Your task to perform on an android device: turn on bluetooth scan Image 0: 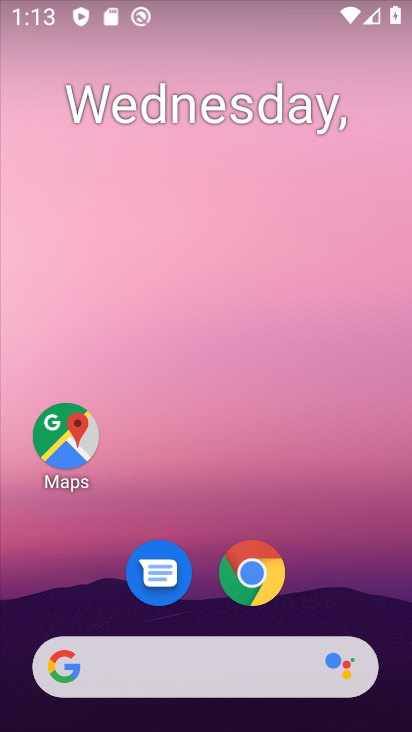
Step 0: drag from (90, 618) to (163, 170)
Your task to perform on an android device: turn on bluetooth scan Image 1: 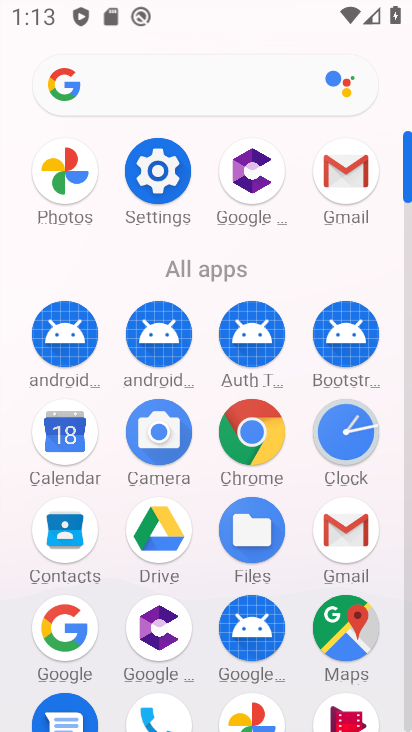
Step 1: drag from (143, 554) to (202, 337)
Your task to perform on an android device: turn on bluetooth scan Image 2: 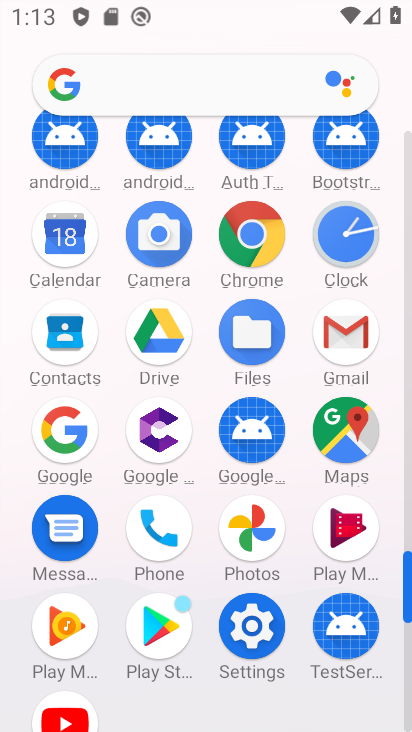
Step 2: click (259, 623)
Your task to perform on an android device: turn on bluetooth scan Image 3: 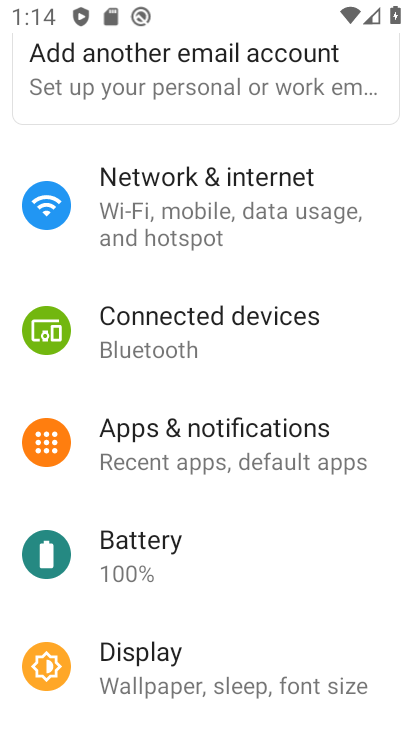
Step 3: click (255, 351)
Your task to perform on an android device: turn on bluetooth scan Image 4: 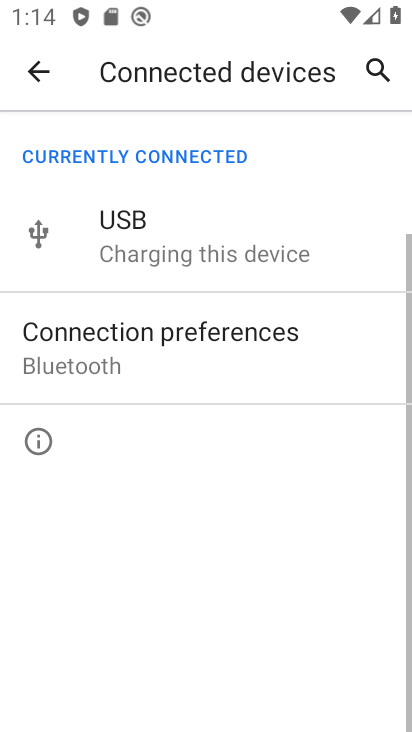
Step 4: click (226, 340)
Your task to perform on an android device: turn on bluetooth scan Image 5: 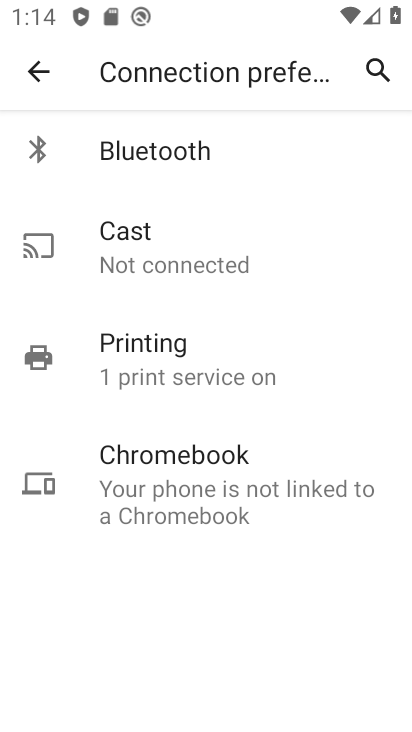
Step 5: click (243, 152)
Your task to perform on an android device: turn on bluetooth scan Image 6: 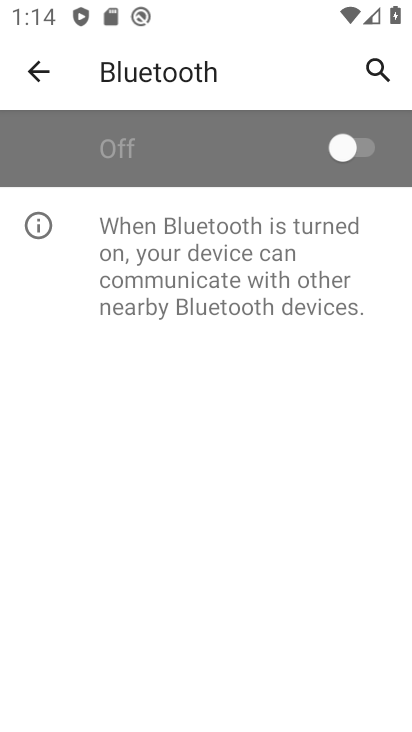
Step 6: click (369, 151)
Your task to perform on an android device: turn on bluetooth scan Image 7: 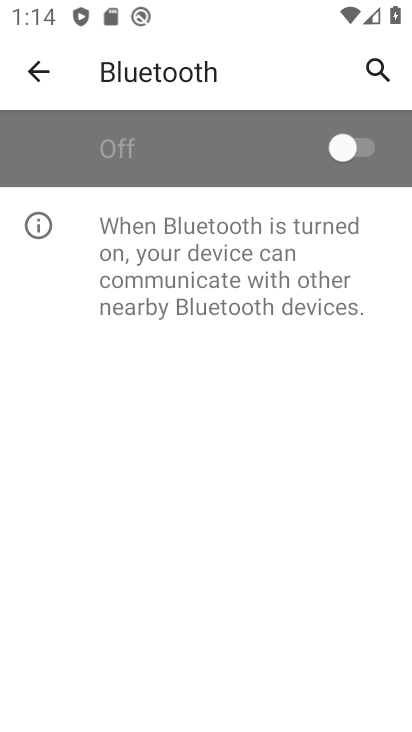
Step 7: click (369, 150)
Your task to perform on an android device: turn on bluetooth scan Image 8: 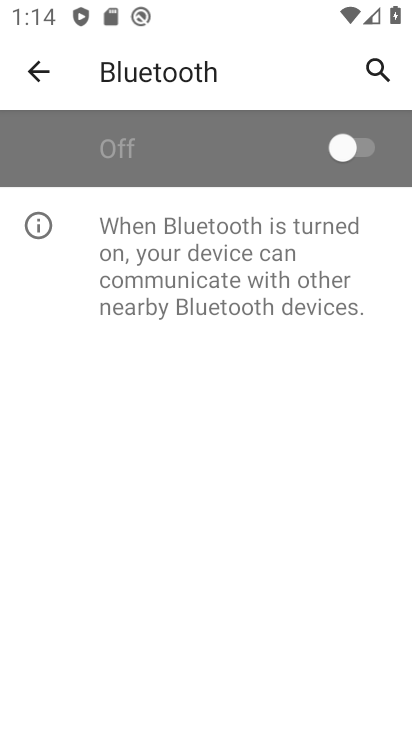
Step 8: task complete